Your task to perform on an android device: turn off notifications settings in the gmail app Image 0: 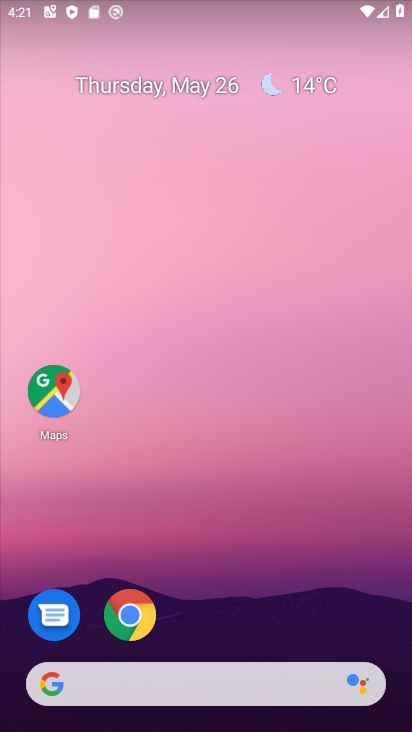
Step 0: drag from (248, 512) to (255, 75)
Your task to perform on an android device: turn off notifications settings in the gmail app Image 1: 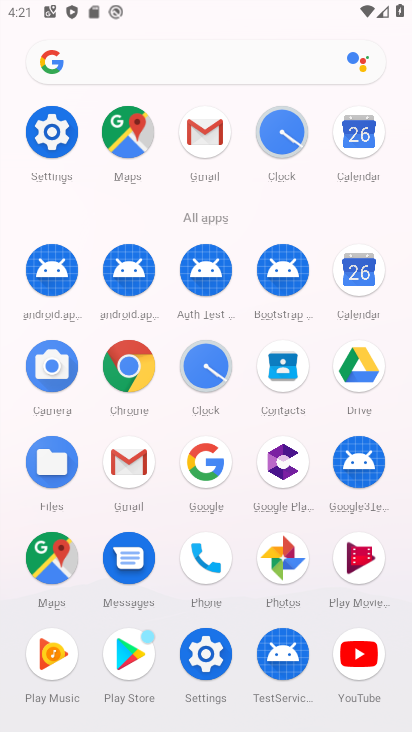
Step 1: click (207, 144)
Your task to perform on an android device: turn off notifications settings in the gmail app Image 2: 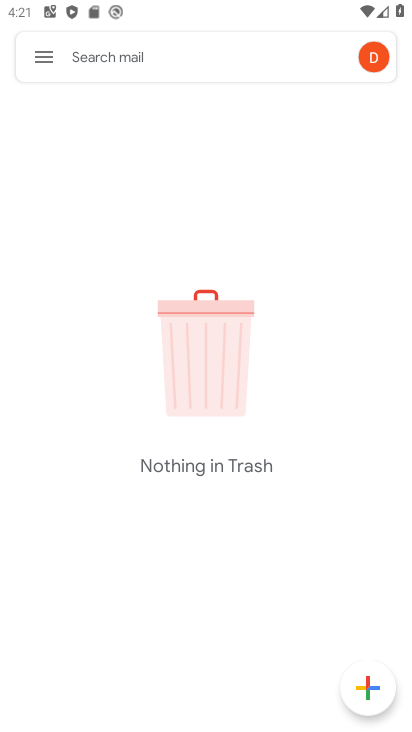
Step 2: click (39, 50)
Your task to perform on an android device: turn off notifications settings in the gmail app Image 3: 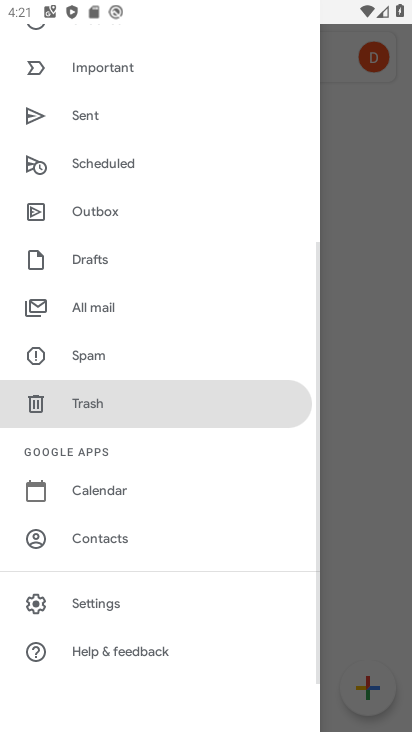
Step 3: click (115, 593)
Your task to perform on an android device: turn off notifications settings in the gmail app Image 4: 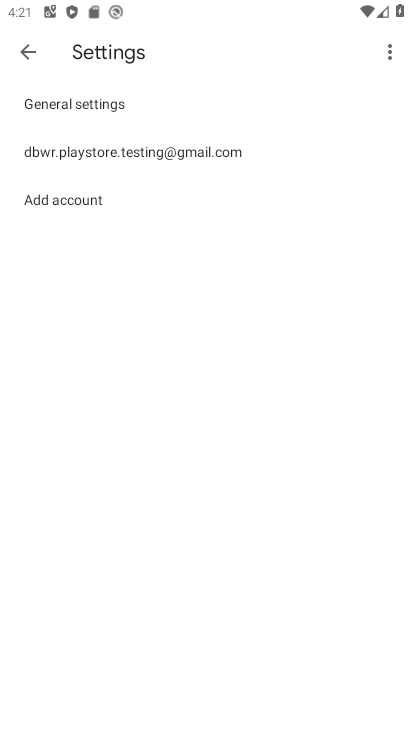
Step 4: click (135, 142)
Your task to perform on an android device: turn off notifications settings in the gmail app Image 5: 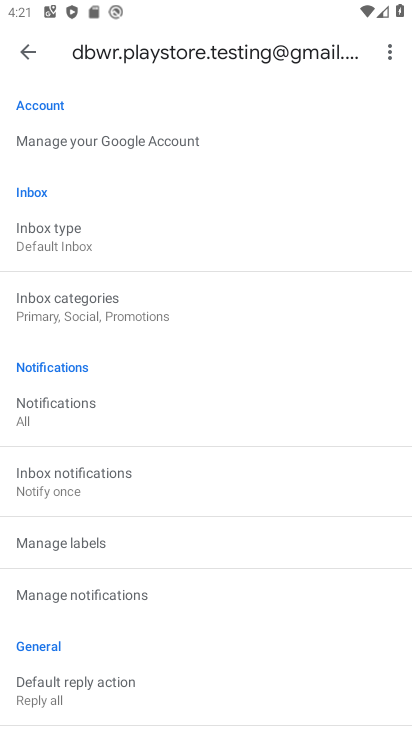
Step 5: click (70, 600)
Your task to perform on an android device: turn off notifications settings in the gmail app Image 6: 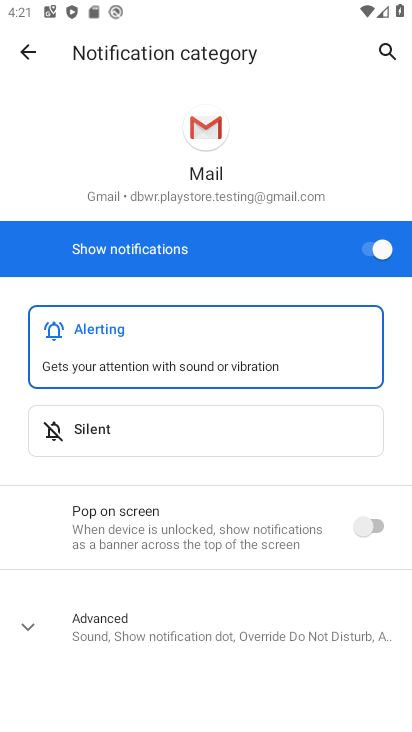
Step 6: click (378, 238)
Your task to perform on an android device: turn off notifications settings in the gmail app Image 7: 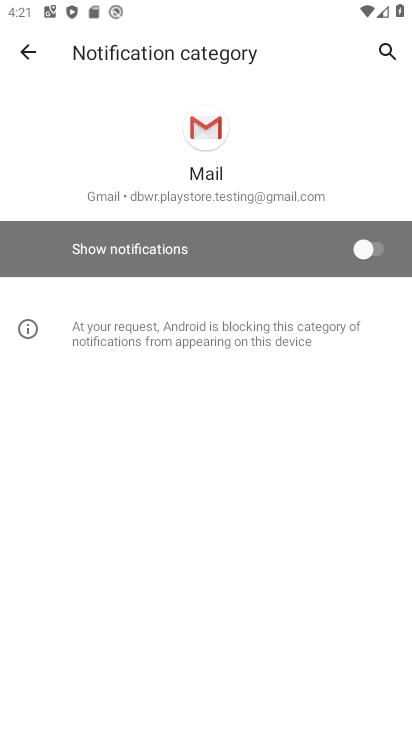
Step 7: task complete